Your task to perform on an android device: Do I have any events this weekend? Image 0: 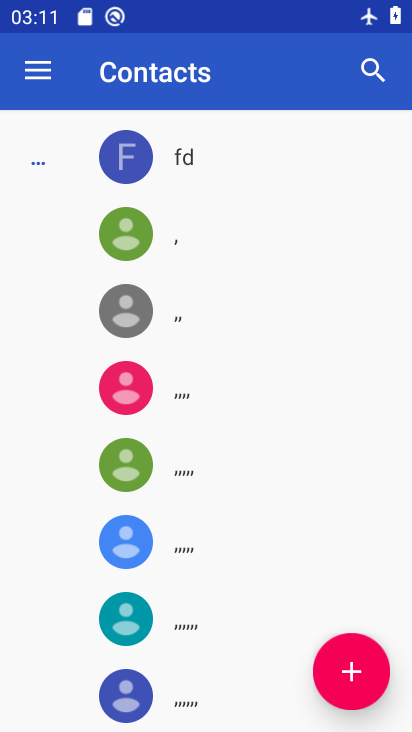
Step 0: press home button
Your task to perform on an android device: Do I have any events this weekend? Image 1: 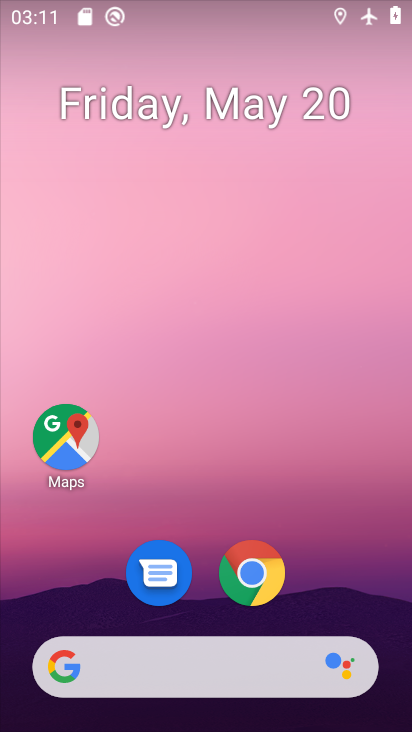
Step 1: drag from (220, 626) to (221, 283)
Your task to perform on an android device: Do I have any events this weekend? Image 2: 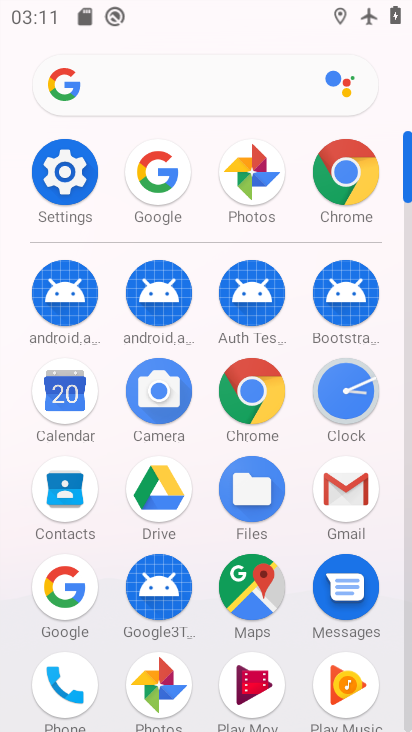
Step 2: click (70, 373)
Your task to perform on an android device: Do I have any events this weekend? Image 3: 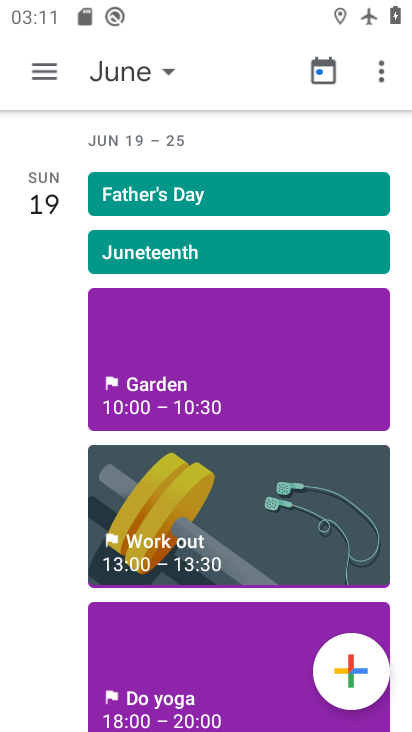
Step 3: click (164, 79)
Your task to perform on an android device: Do I have any events this weekend? Image 4: 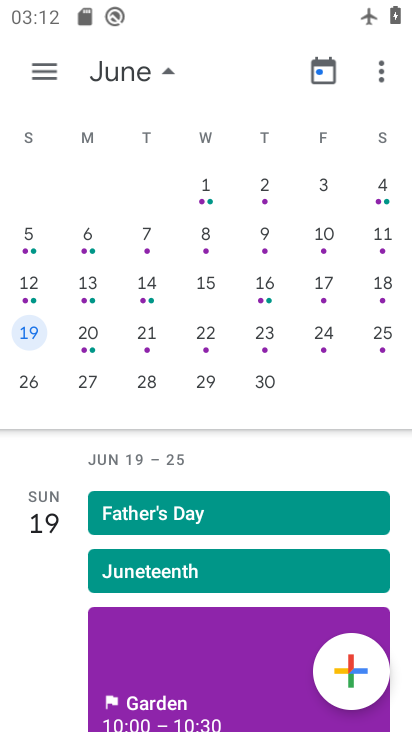
Step 4: drag from (53, 268) to (349, 274)
Your task to perform on an android device: Do I have any events this weekend? Image 5: 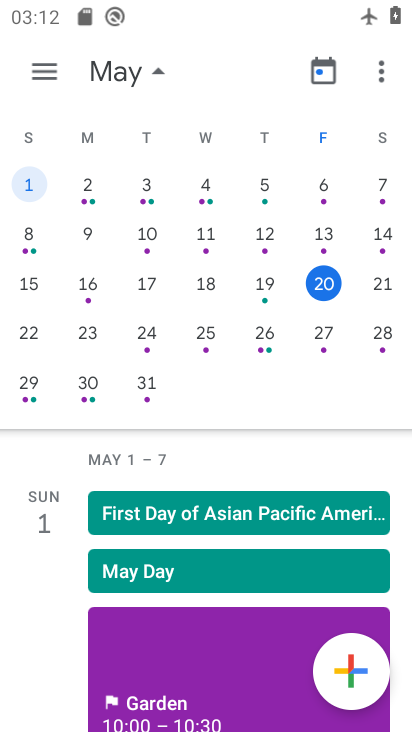
Step 5: click (372, 279)
Your task to perform on an android device: Do I have any events this weekend? Image 6: 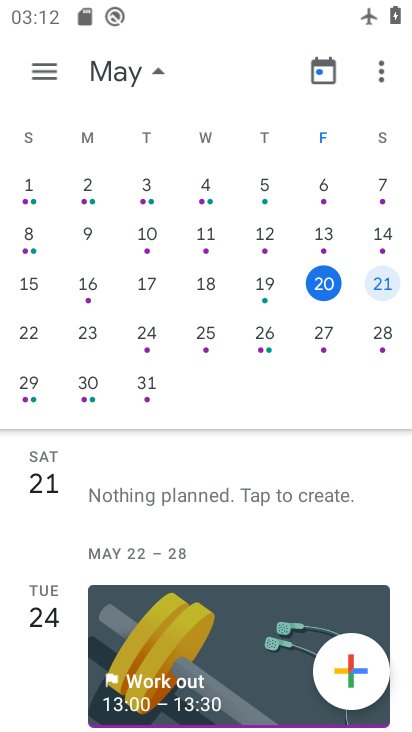
Step 6: task complete